Your task to perform on an android device: check battery use Image 0: 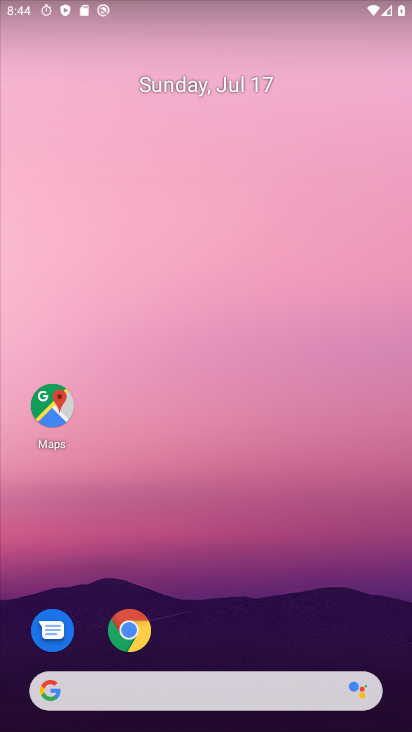
Step 0: drag from (21, 709) to (259, 229)
Your task to perform on an android device: check battery use Image 1: 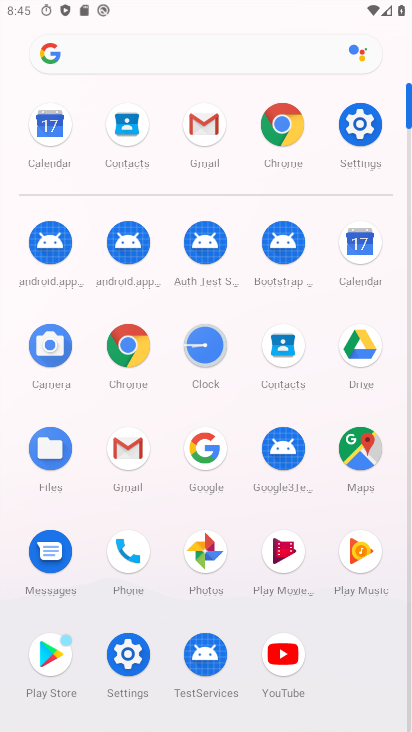
Step 1: click (112, 662)
Your task to perform on an android device: check battery use Image 2: 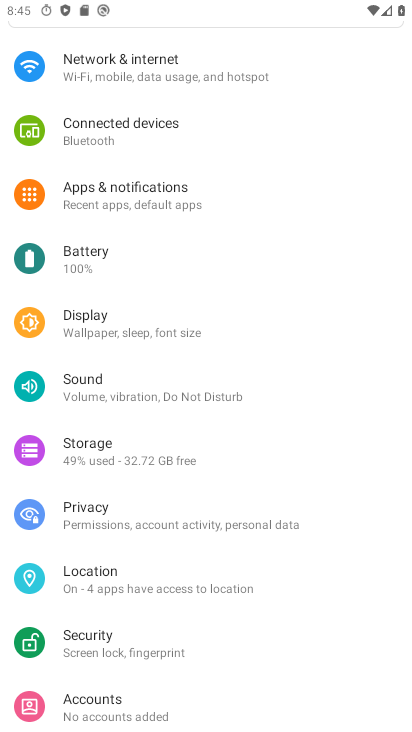
Step 2: click (129, 247)
Your task to perform on an android device: check battery use Image 3: 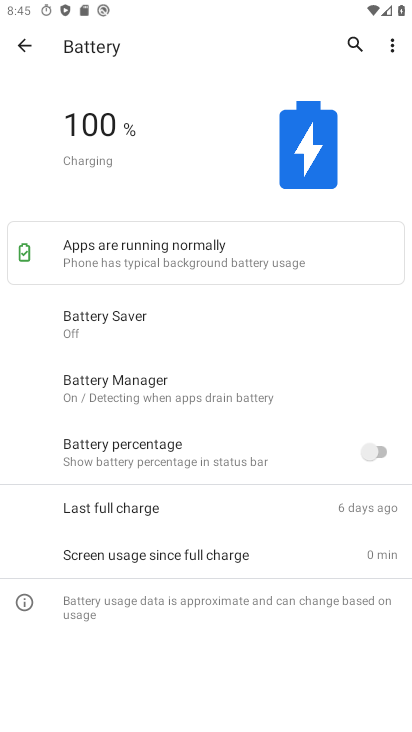
Step 3: task complete